Your task to perform on an android device: change the upload size in google photos Image 0: 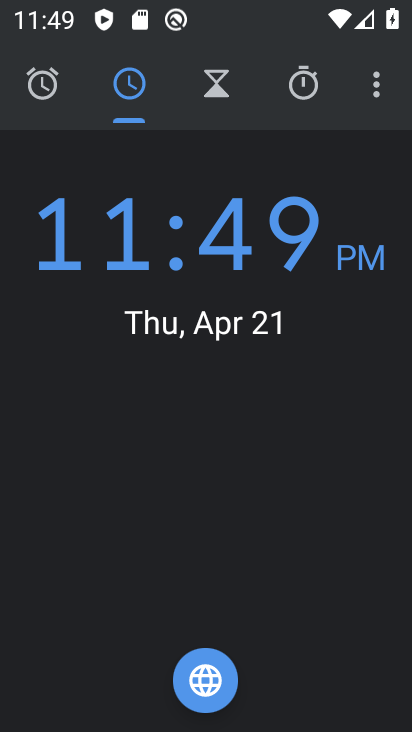
Step 0: click (381, 78)
Your task to perform on an android device: change the upload size in google photos Image 1: 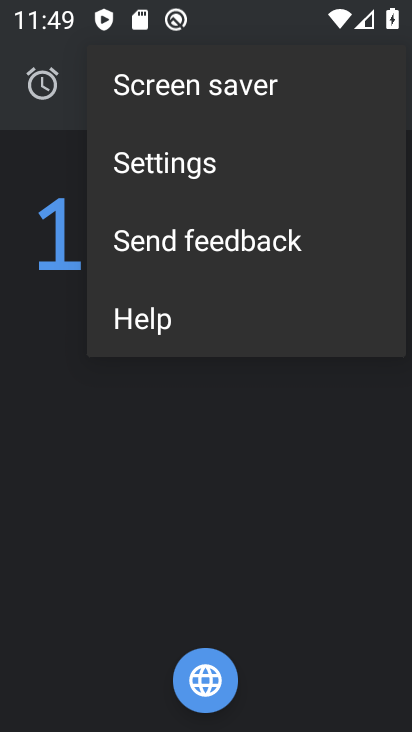
Step 1: press home button
Your task to perform on an android device: change the upload size in google photos Image 2: 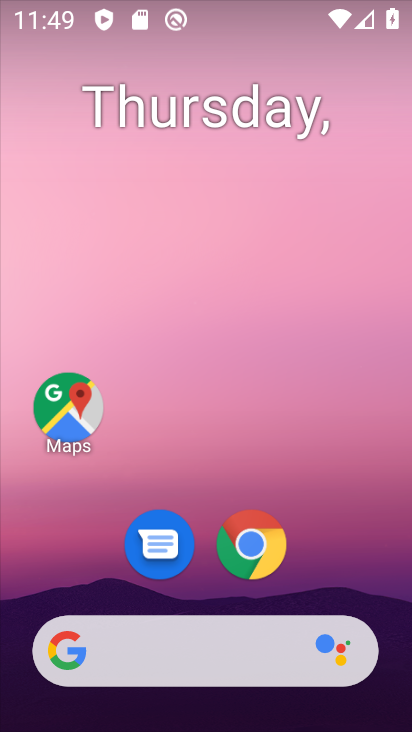
Step 2: drag from (208, 605) to (194, 51)
Your task to perform on an android device: change the upload size in google photos Image 3: 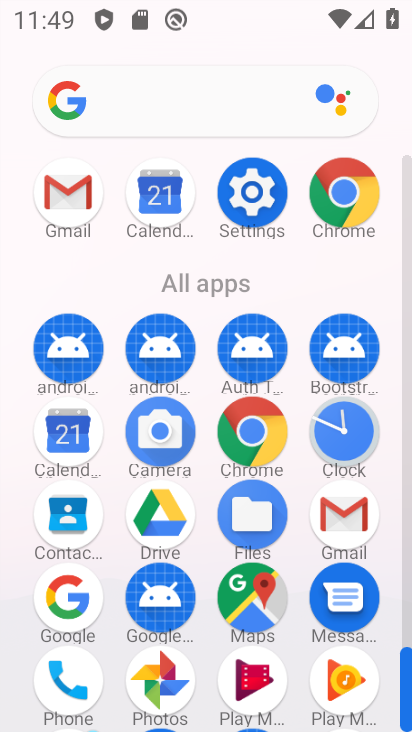
Step 3: click (165, 668)
Your task to perform on an android device: change the upload size in google photos Image 4: 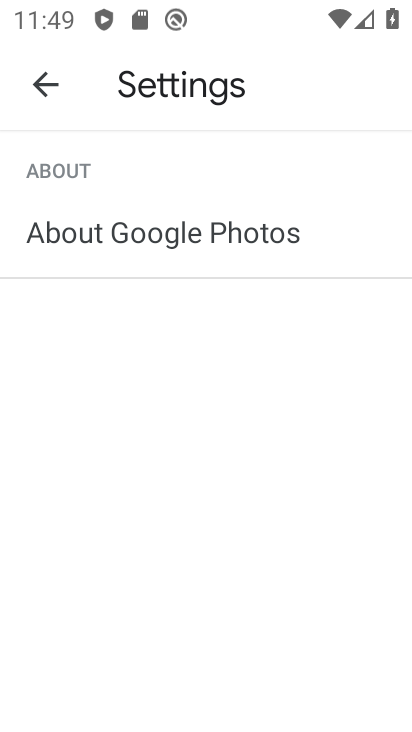
Step 4: click (50, 84)
Your task to perform on an android device: change the upload size in google photos Image 5: 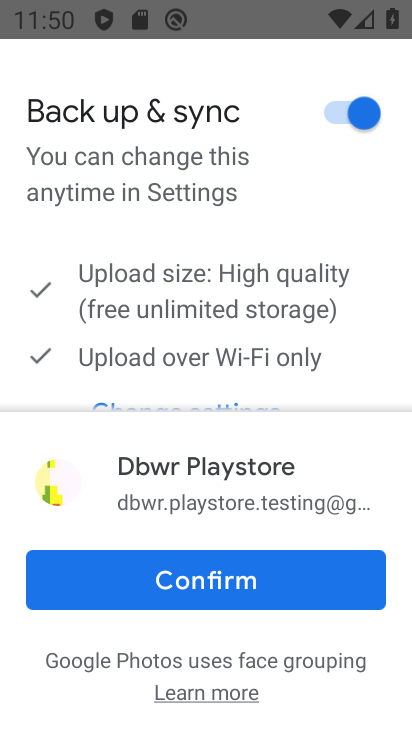
Step 5: drag from (172, 366) to (155, 155)
Your task to perform on an android device: change the upload size in google photos Image 6: 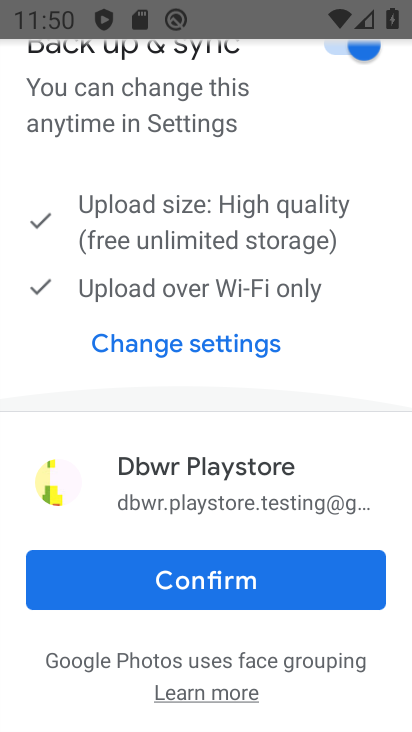
Step 6: click (124, 343)
Your task to perform on an android device: change the upload size in google photos Image 7: 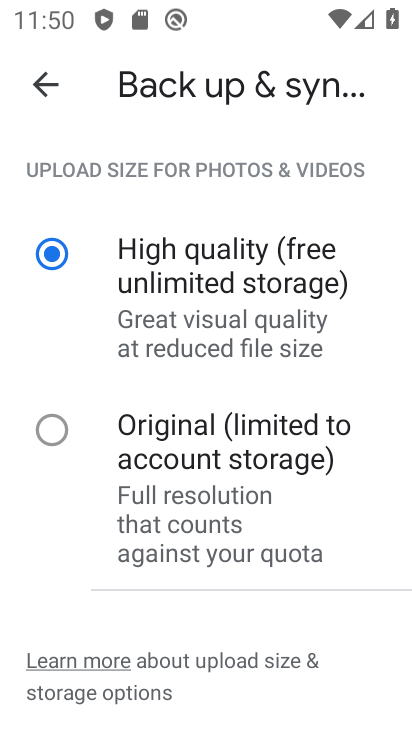
Step 7: click (57, 423)
Your task to perform on an android device: change the upload size in google photos Image 8: 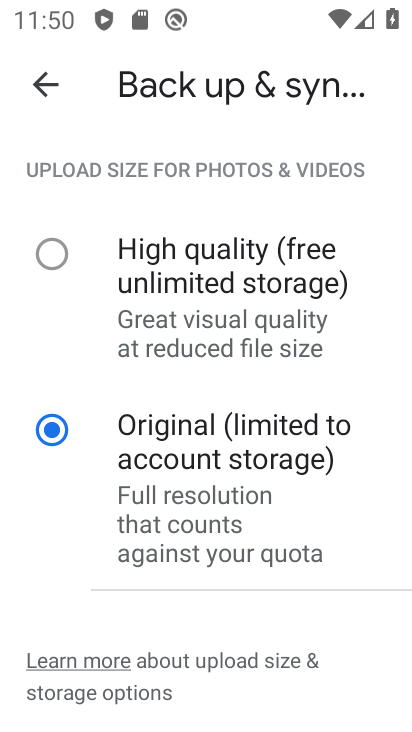
Step 8: drag from (136, 558) to (82, 95)
Your task to perform on an android device: change the upload size in google photos Image 9: 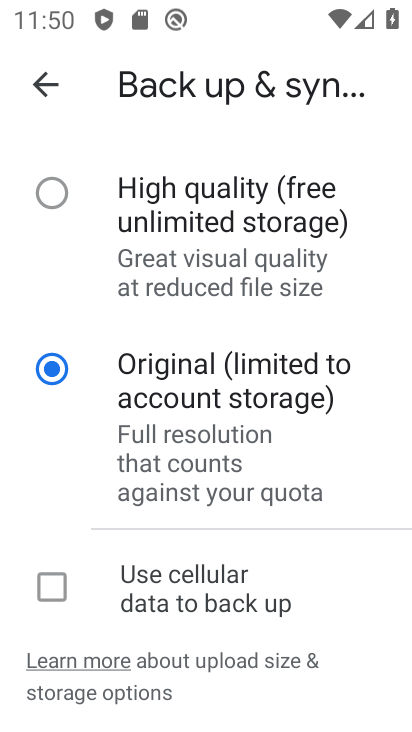
Step 9: drag from (166, 583) to (100, 87)
Your task to perform on an android device: change the upload size in google photos Image 10: 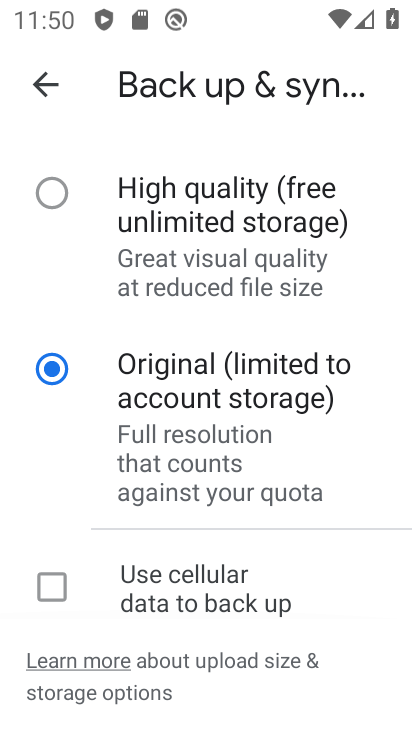
Step 10: click (59, 85)
Your task to perform on an android device: change the upload size in google photos Image 11: 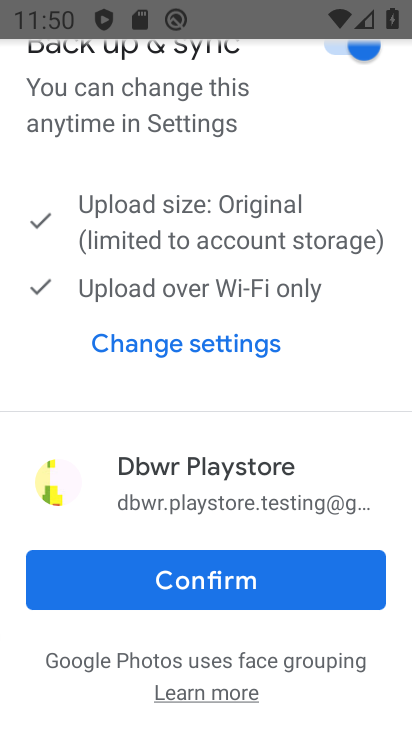
Step 11: click (218, 594)
Your task to perform on an android device: change the upload size in google photos Image 12: 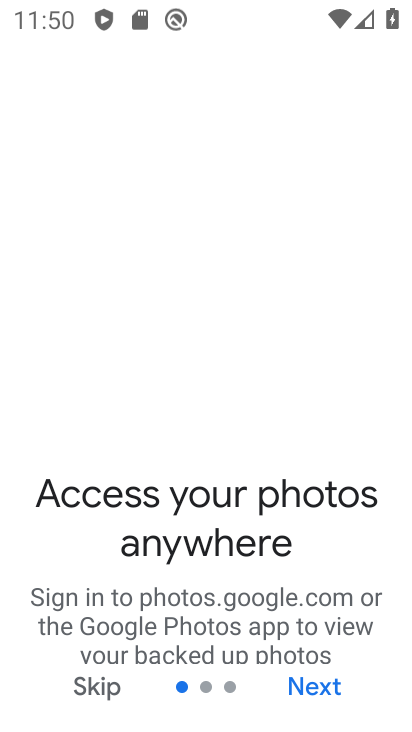
Step 12: task complete